Your task to perform on an android device: Go to notification settings Image 0: 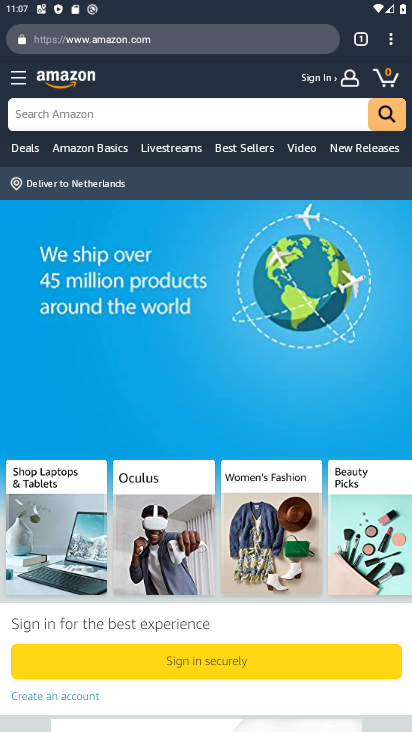
Step 0: press home button
Your task to perform on an android device: Go to notification settings Image 1: 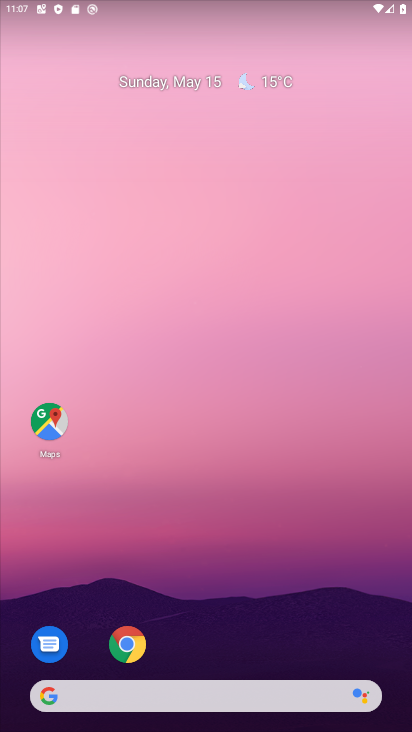
Step 1: drag from (309, 652) to (298, 236)
Your task to perform on an android device: Go to notification settings Image 2: 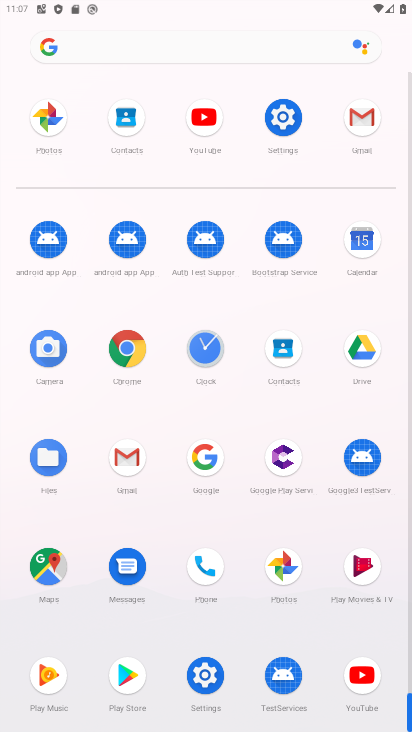
Step 2: click (294, 133)
Your task to perform on an android device: Go to notification settings Image 3: 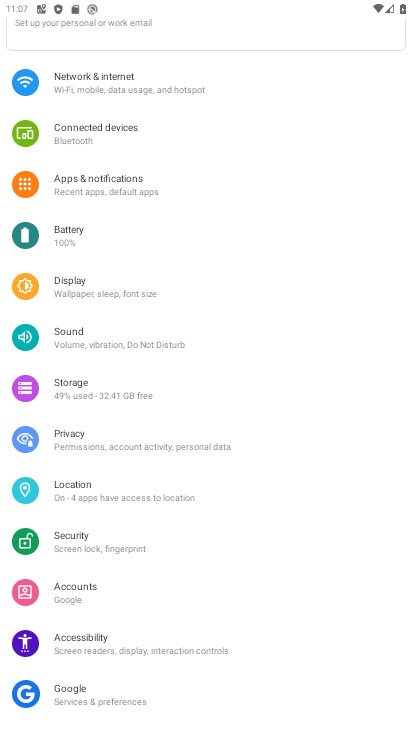
Step 3: click (108, 181)
Your task to perform on an android device: Go to notification settings Image 4: 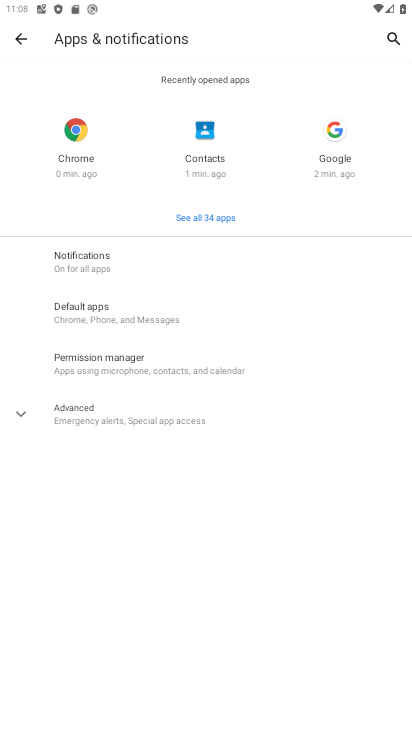
Step 4: click (98, 250)
Your task to perform on an android device: Go to notification settings Image 5: 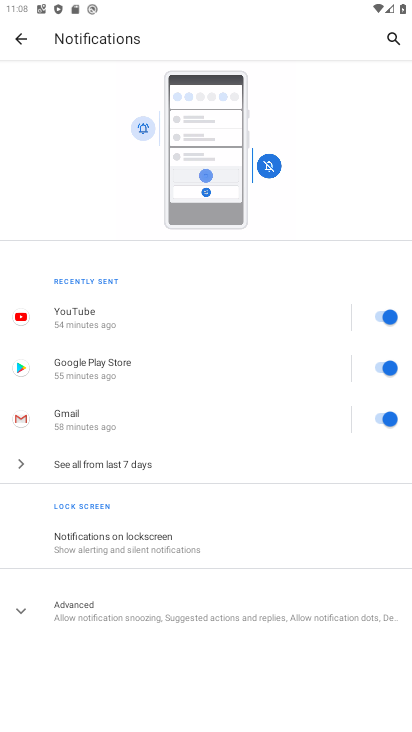
Step 5: task complete